Your task to perform on an android device: open app "Google Docs" (install if not already installed) Image 0: 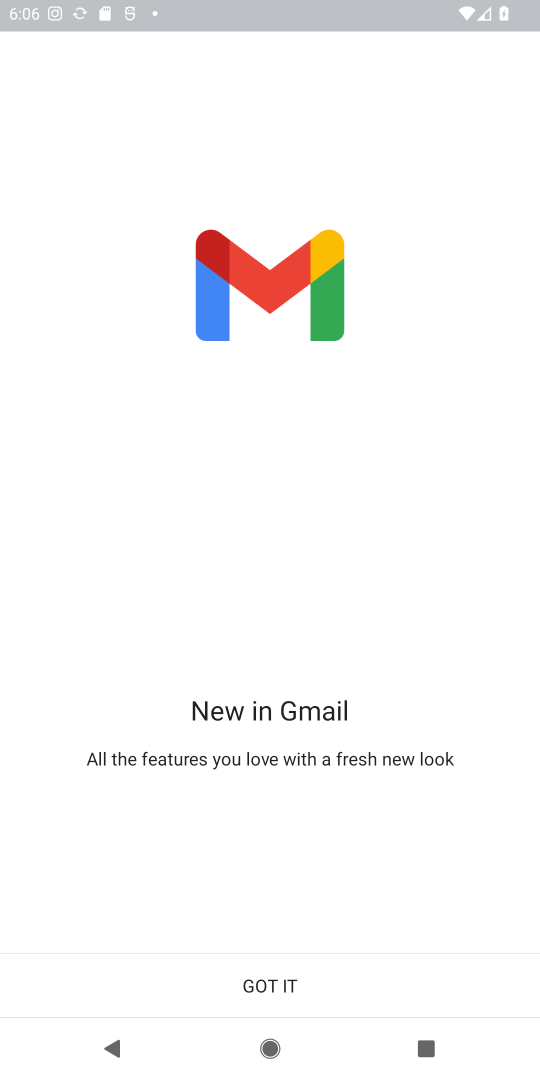
Step 0: press home button
Your task to perform on an android device: open app "Google Docs" (install if not already installed) Image 1: 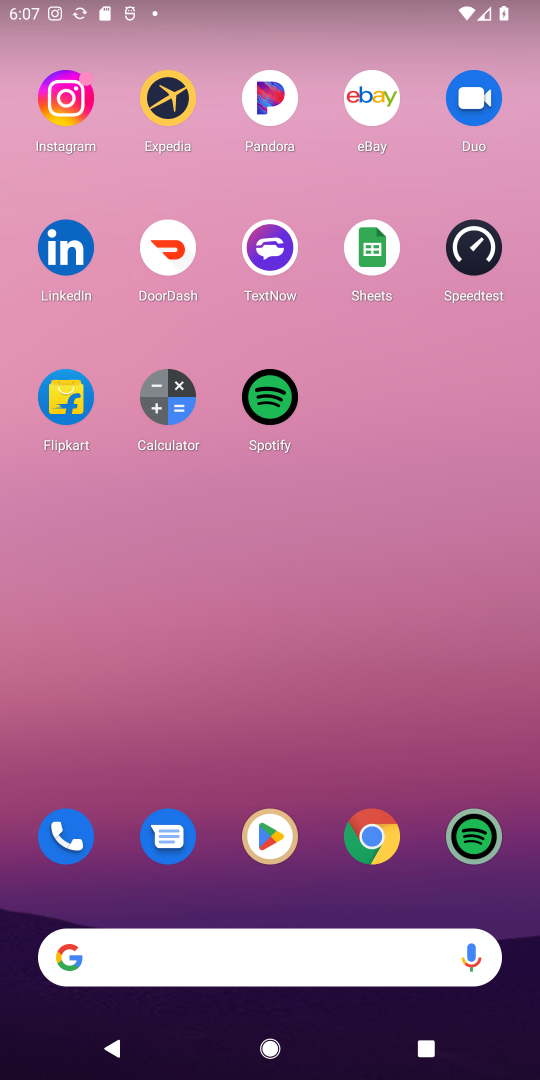
Step 1: click (271, 833)
Your task to perform on an android device: open app "Google Docs" (install if not already installed) Image 2: 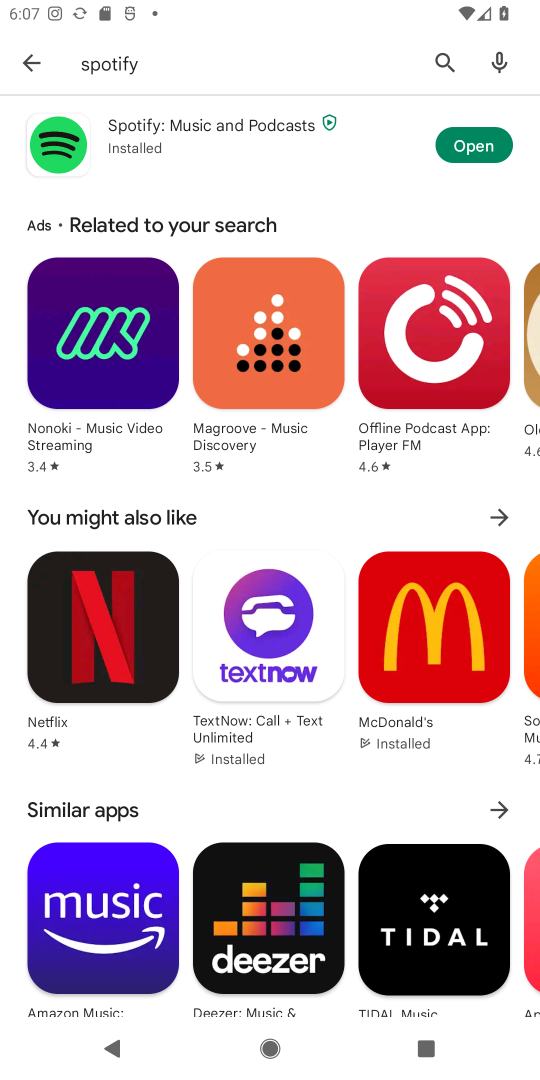
Step 2: click (440, 63)
Your task to perform on an android device: open app "Google Docs" (install if not already installed) Image 3: 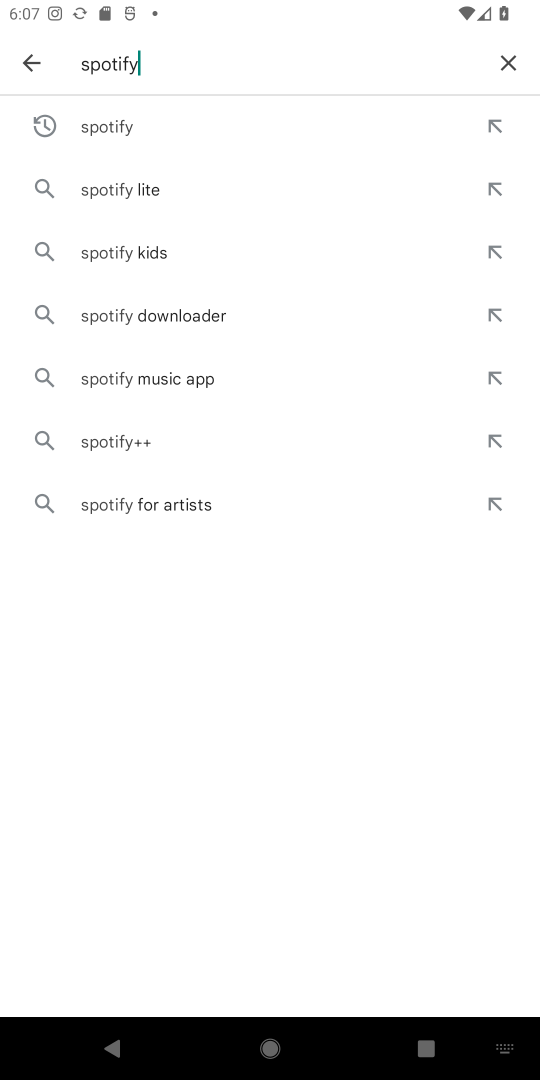
Step 3: click (507, 58)
Your task to perform on an android device: open app "Google Docs" (install if not already installed) Image 4: 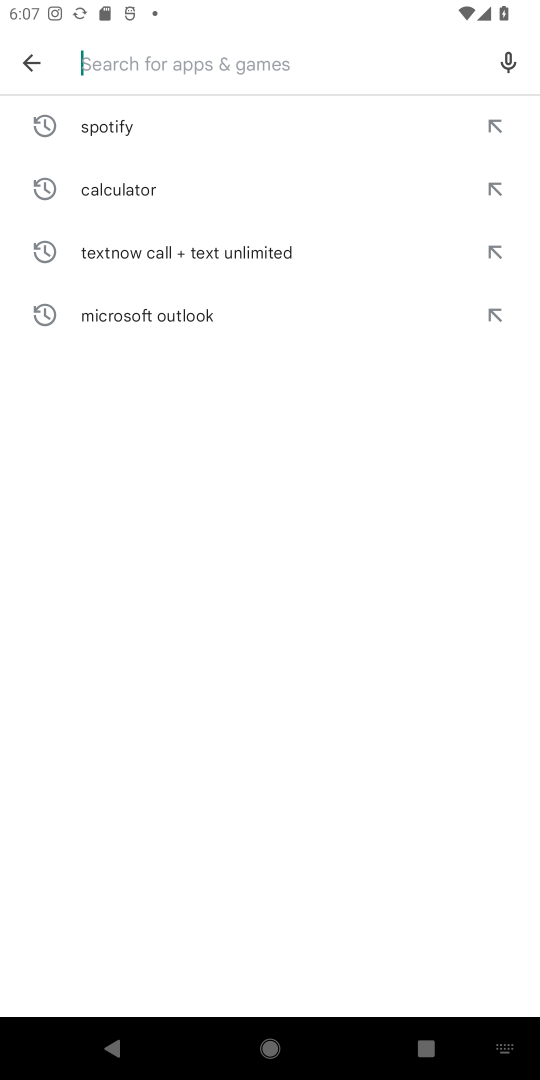
Step 4: type "Google Docs"
Your task to perform on an android device: open app "Google Docs" (install if not already installed) Image 5: 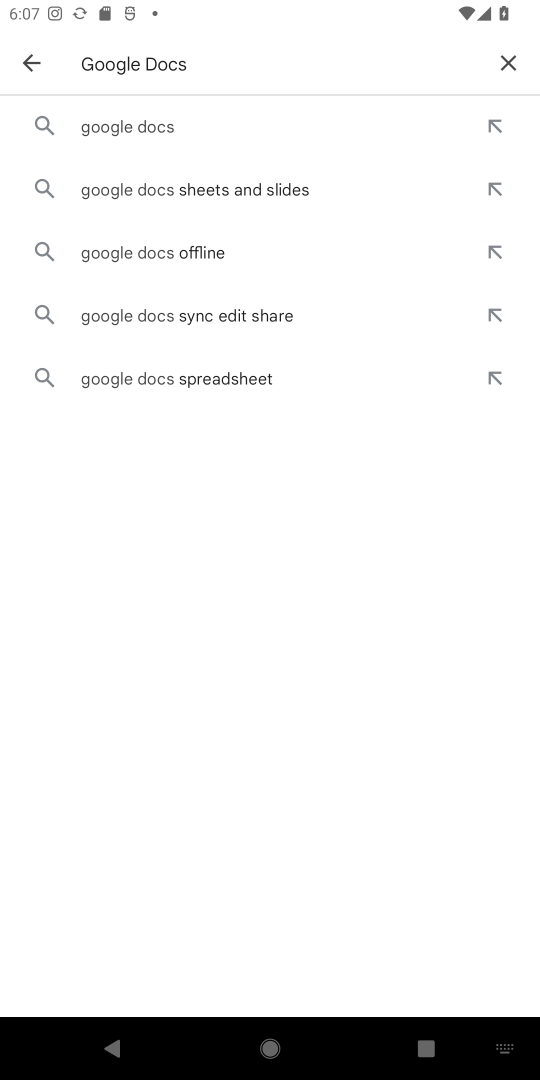
Step 5: click (147, 136)
Your task to perform on an android device: open app "Google Docs" (install if not already installed) Image 6: 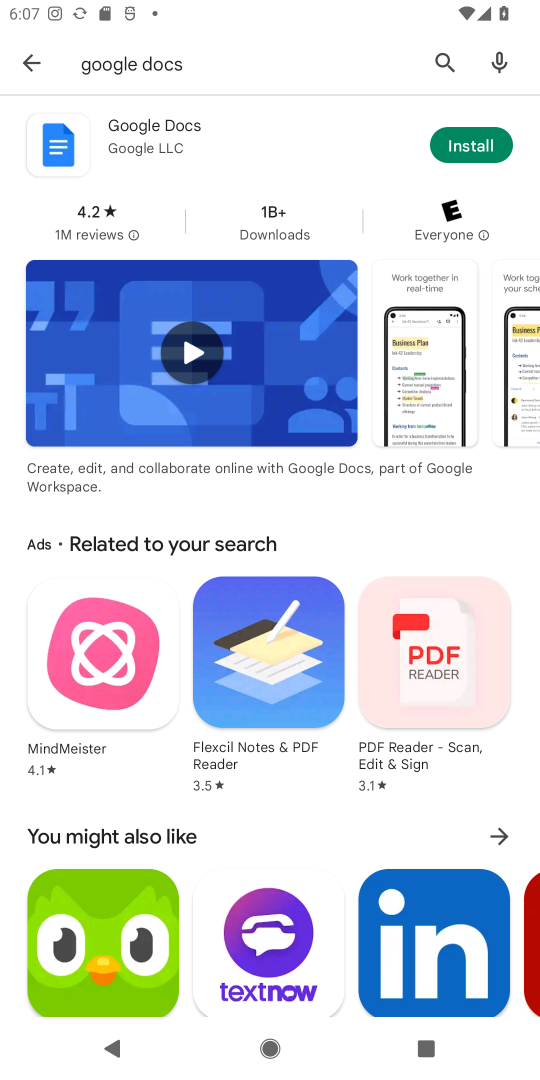
Step 6: click (476, 147)
Your task to perform on an android device: open app "Google Docs" (install if not already installed) Image 7: 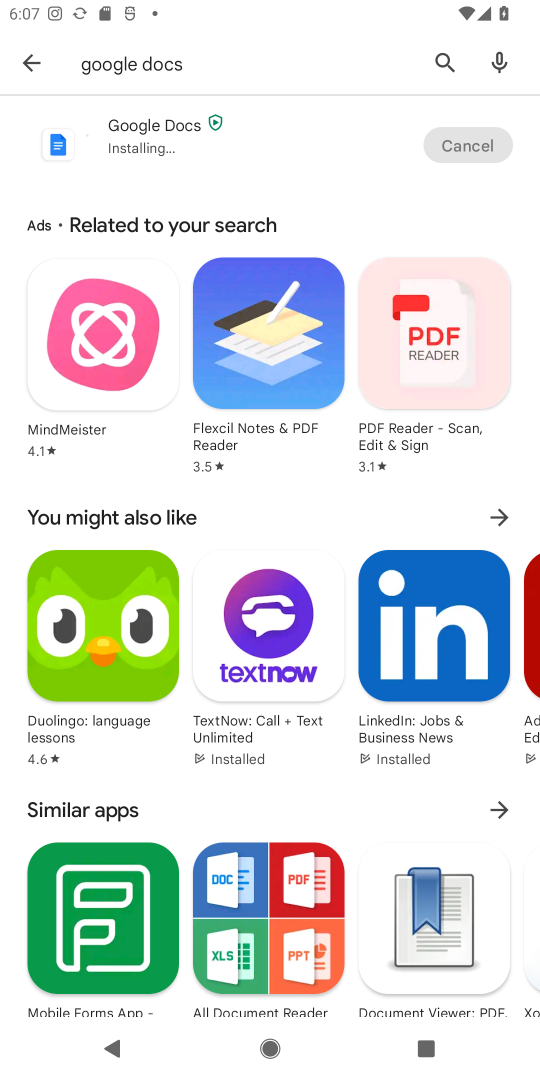
Step 7: click (171, 130)
Your task to perform on an android device: open app "Google Docs" (install if not already installed) Image 8: 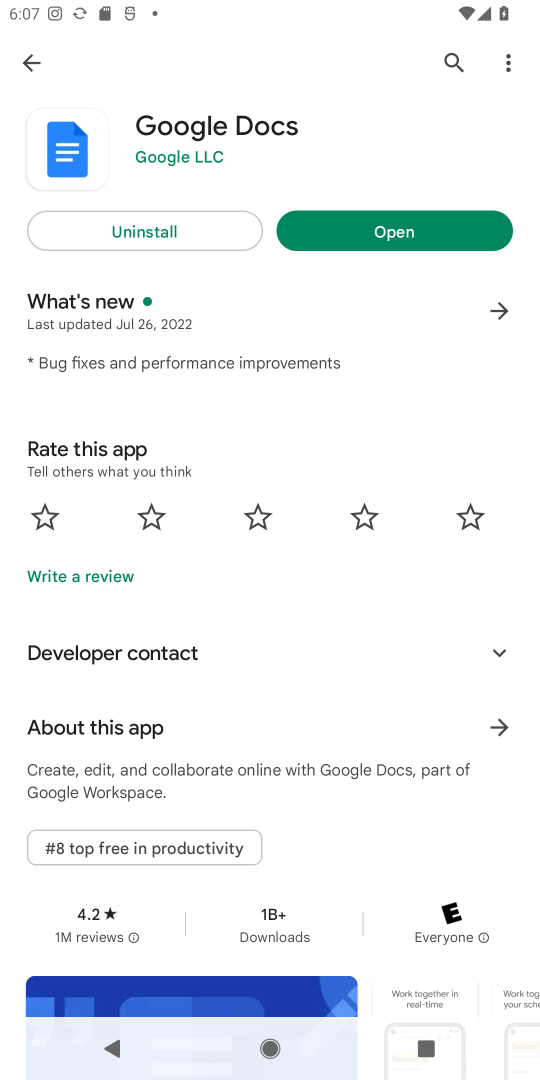
Step 8: click (393, 235)
Your task to perform on an android device: open app "Google Docs" (install if not already installed) Image 9: 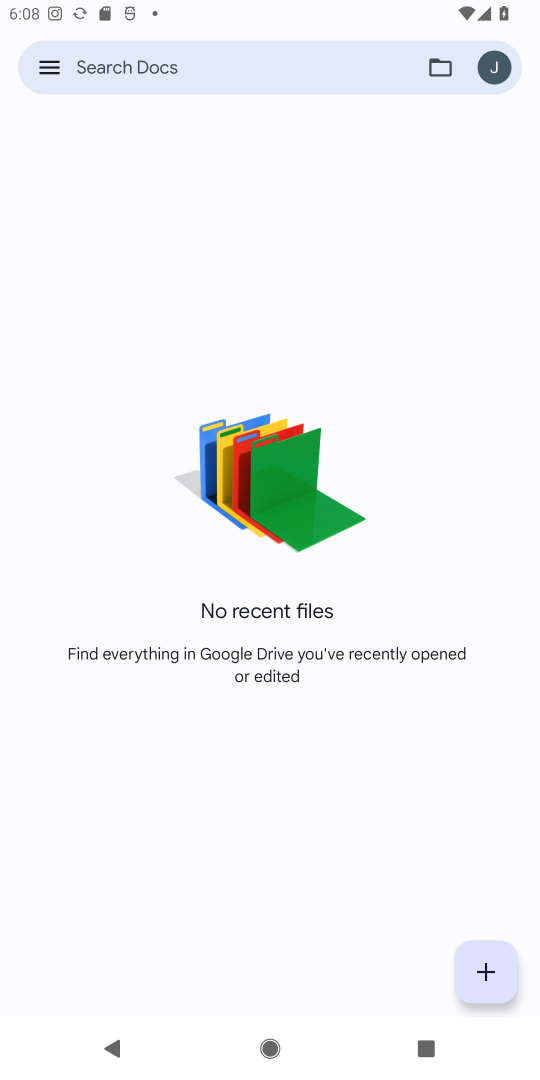
Step 9: task complete